Your task to perform on an android device: Go to Google maps Image 0: 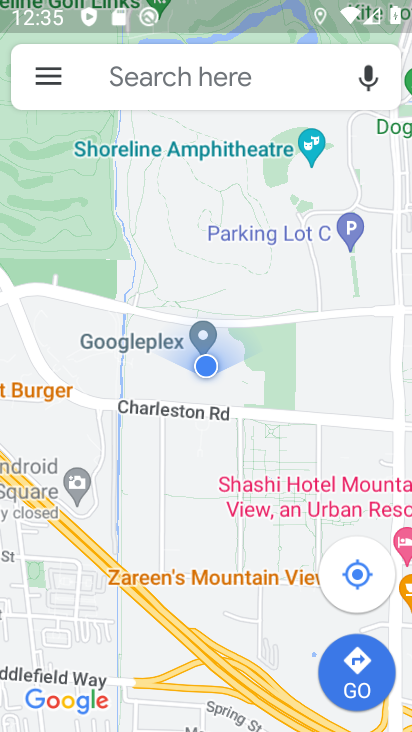
Step 0: task complete